Your task to perform on an android device: open a bookmark in the chrome app Image 0: 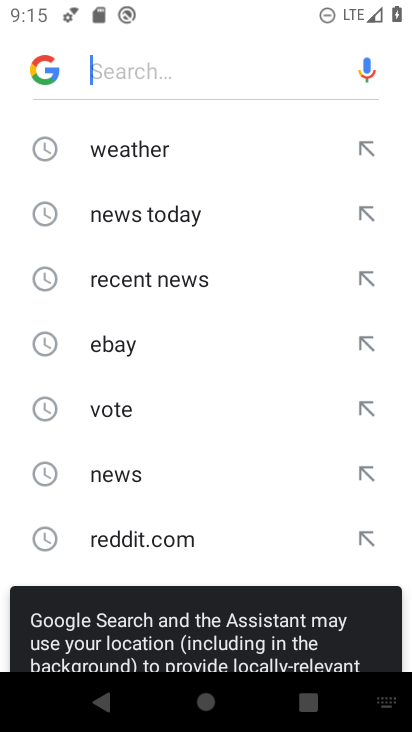
Step 0: press back button
Your task to perform on an android device: open a bookmark in the chrome app Image 1: 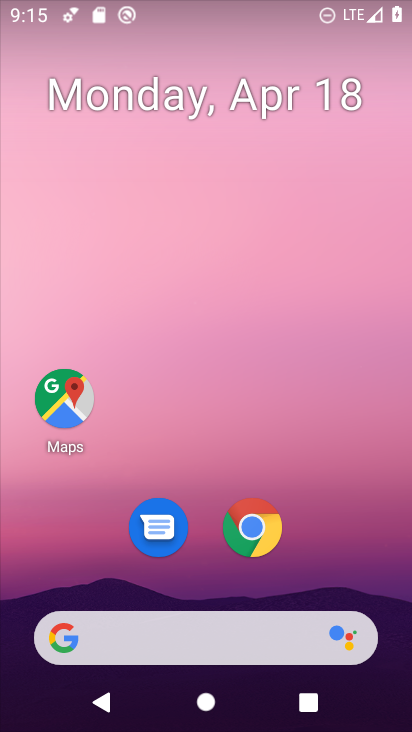
Step 1: drag from (385, 515) to (300, 0)
Your task to perform on an android device: open a bookmark in the chrome app Image 2: 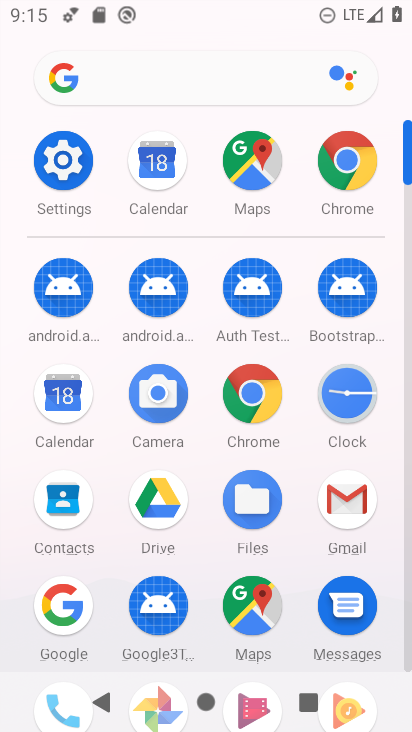
Step 2: click (348, 157)
Your task to perform on an android device: open a bookmark in the chrome app Image 3: 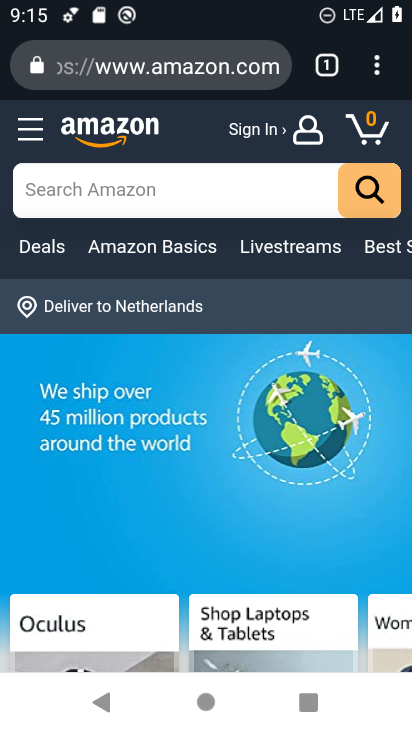
Step 3: click (160, 61)
Your task to perform on an android device: open a bookmark in the chrome app Image 4: 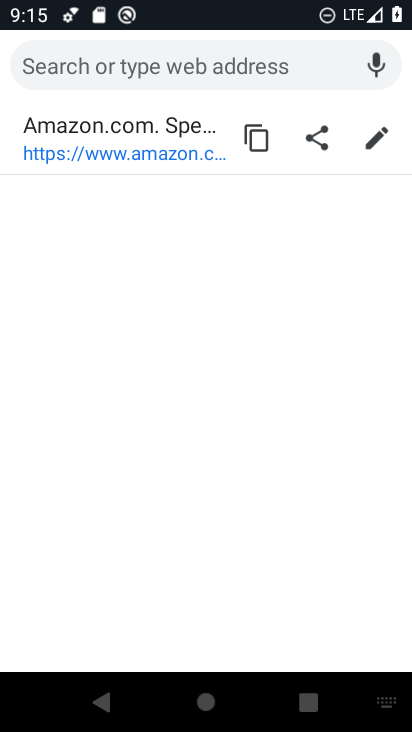
Step 4: press back button
Your task to perform on an android device: open a bookmark in the chrome app Image 5: 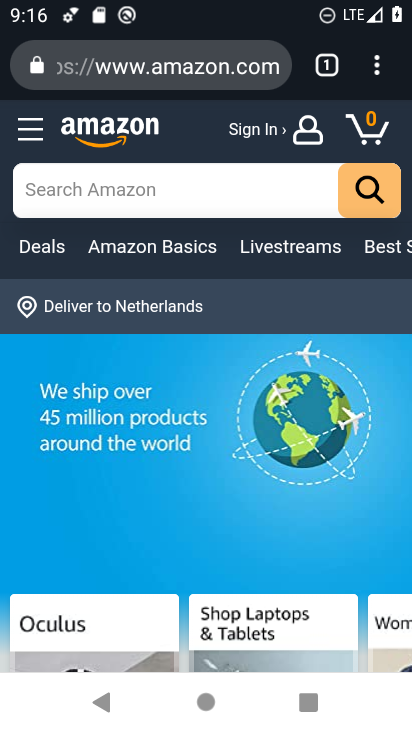
Step 5: drag from (381, 62) to (209, 330)
Your task to perform on an android device: open a bookmark in the chrome app Image 6: 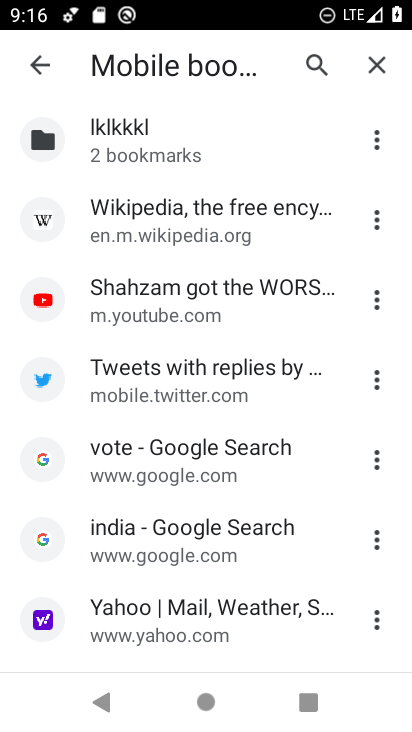
Step 6: click (211, 603)
Your task to perform on an android device: open a bookmark in the chrome app Image 7: 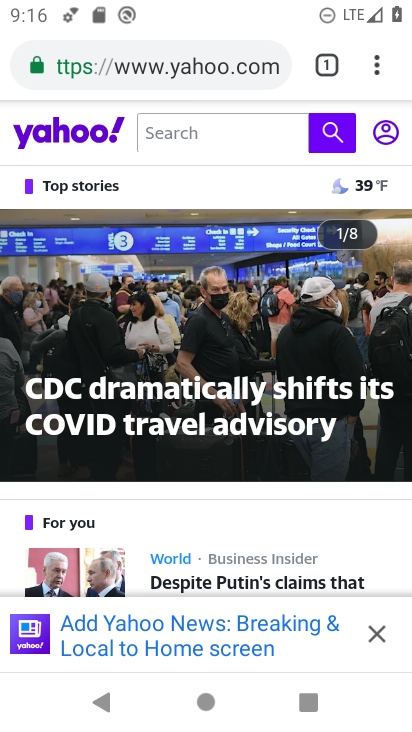
Step 7: task complete